Your task to perform on an android device: change the clock display to analog Image 0: 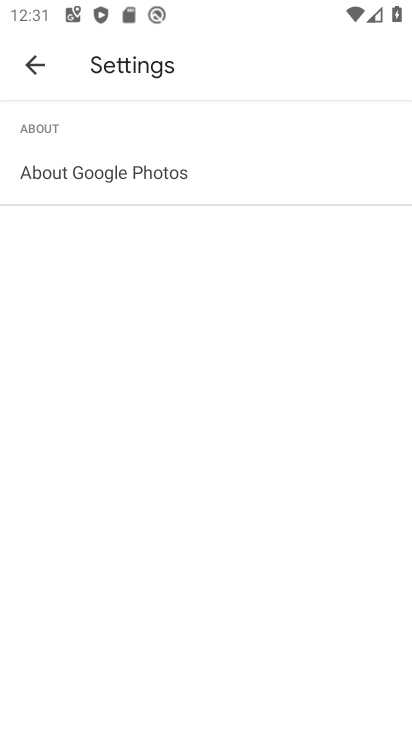
Step 0: press home button
Your task to perform on an android device: change the clock display to analog Image 1: 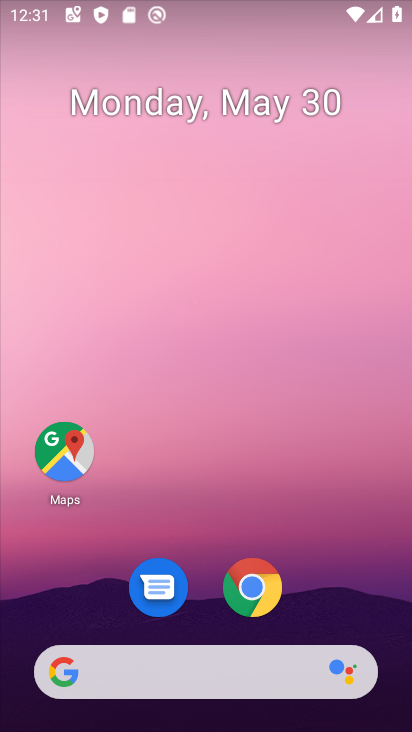
Step 1: drag from (154, 726) to (102, 89)
Your task to perform on an android device: change the clock display to analog Image 2: 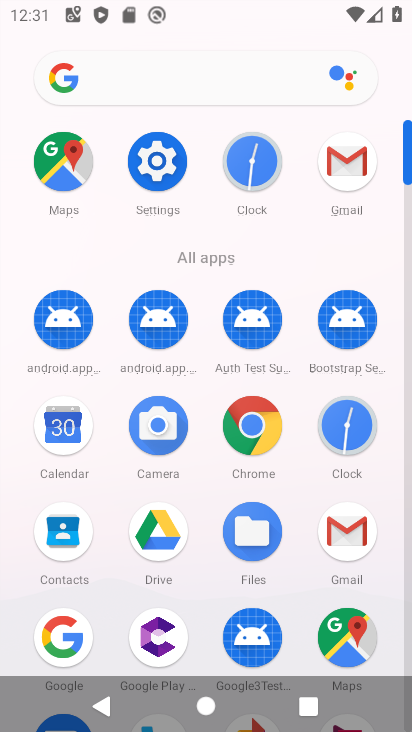
Step 2: click (258, 180)
Your task to perform on an android device: change the clock display to analog Image 3: 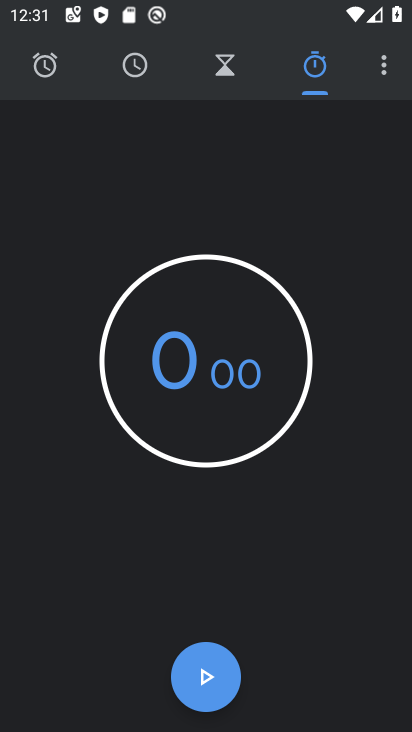
Step 3: click (382, 74)
Your task to perform on an android device: change the clock display to analog Image 4: 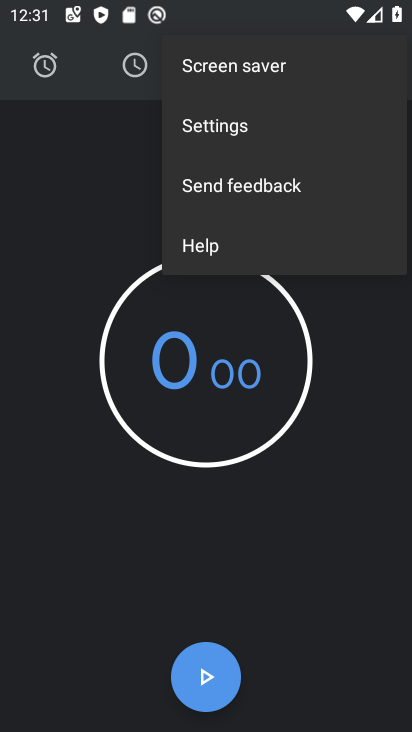
Step 4: click (225, 141)
Your task to perform on an android device: change the clock display to analog Image 5: 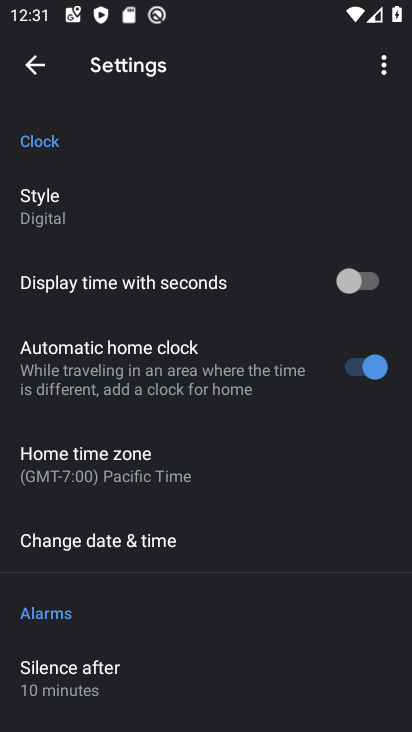
Step 5: click (50, 207)
Your task to perform on an android device: change the clock display to analog Image 6: 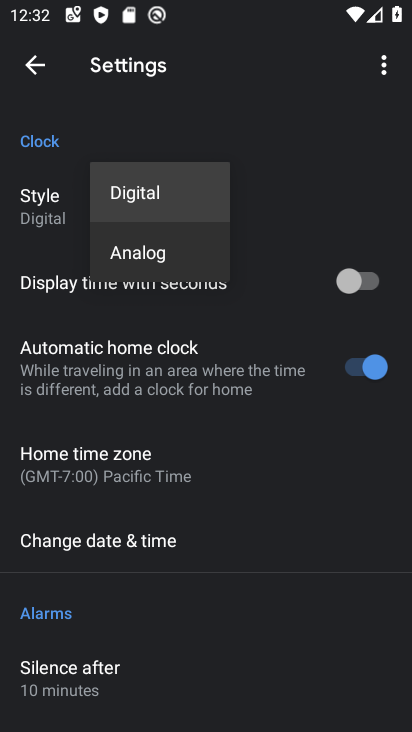
Step 6: click (162, 243)
Your task to perform on an android device: change the clock display to analog Image 7: 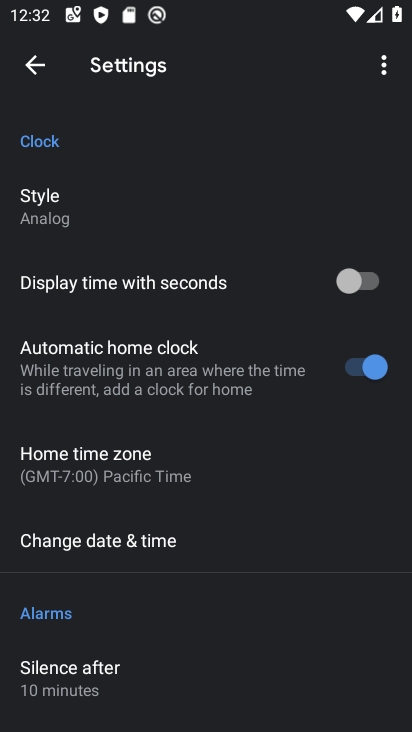
Step 7: task complete